Your task to perform on an android device: turn on showing notifications on the lock screen Image 0: 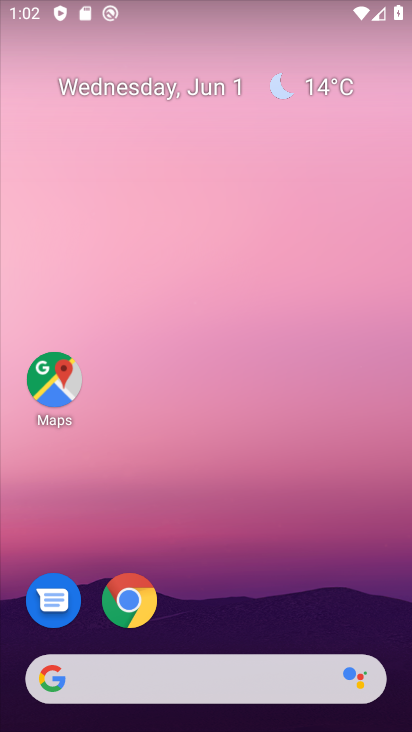
Step 0: drag from (197, 601) to (268, 112)
Your task to perform on an android device: turn on showing notifications on the lock screen Image 1: 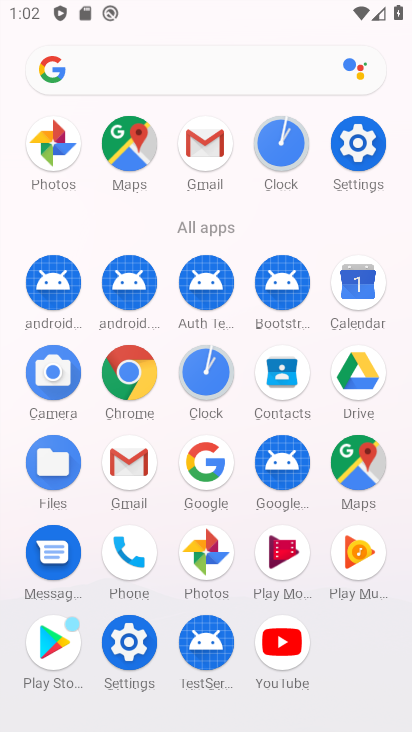
Step 1: click (155, 656)
Your task to perform on an android device: turn on showing notifications on the lock screen Image 2: 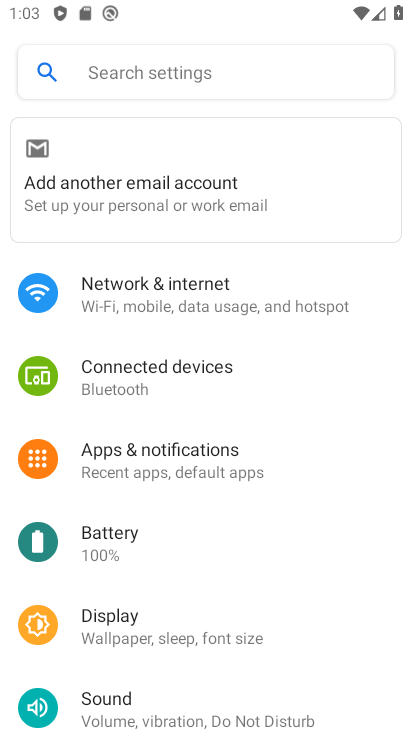
Step 2: click (190, 476)
Your task to perform on an android device: turn on showing notifications on the lock screen Image 3: 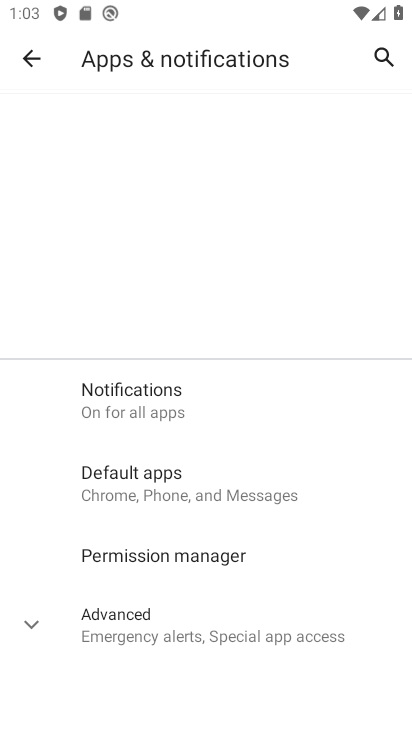
Step 3: drag from (214, 666) to (298, 342)
Your task to perform on an android device: turn on showing notifications on the lock screen Image 4: 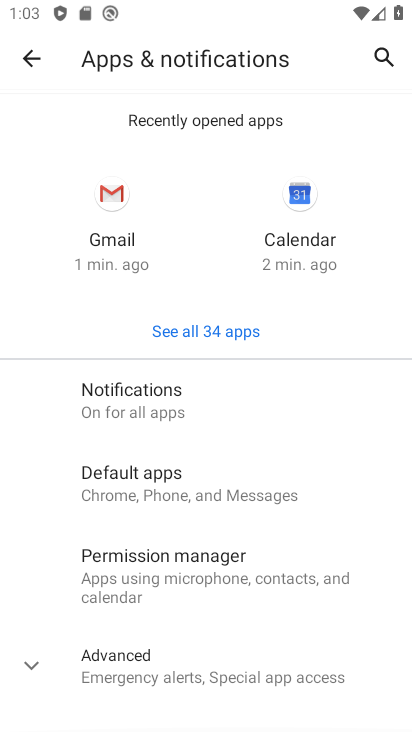
Step 4: click (215, 383)
Your task to perform on an android device: turn on showing notifications on the lock screen Image 5: 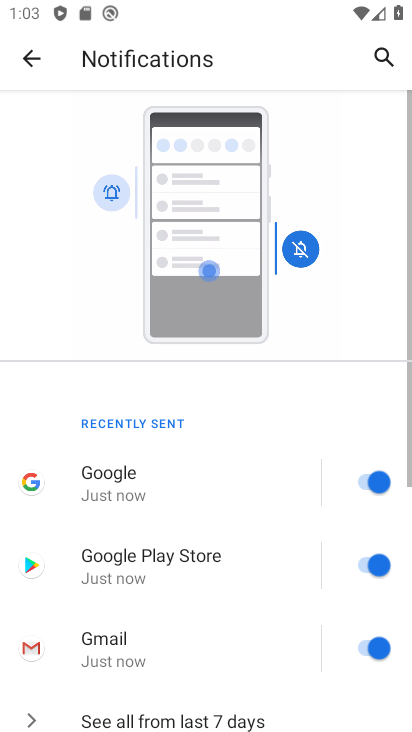
Step 5: drag from (210, 645) to (312, 187)
Your task to perform on an android device: turn on showing notifications on the lock screen Image 6: 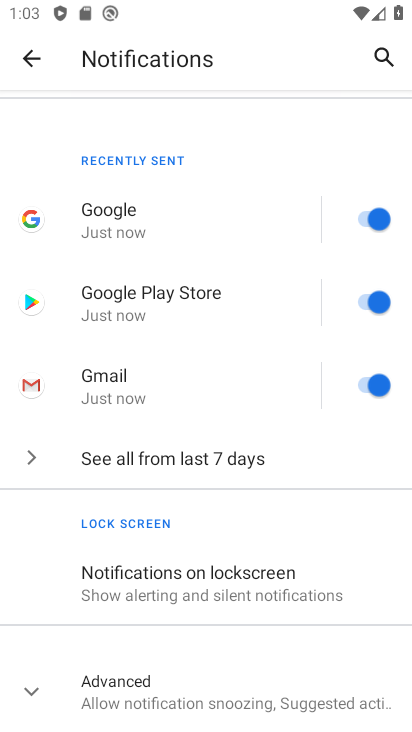
Step 6: click (258, 685)
Your task to perform on an android device: turn on showing notifications on the lock screen Image 7: 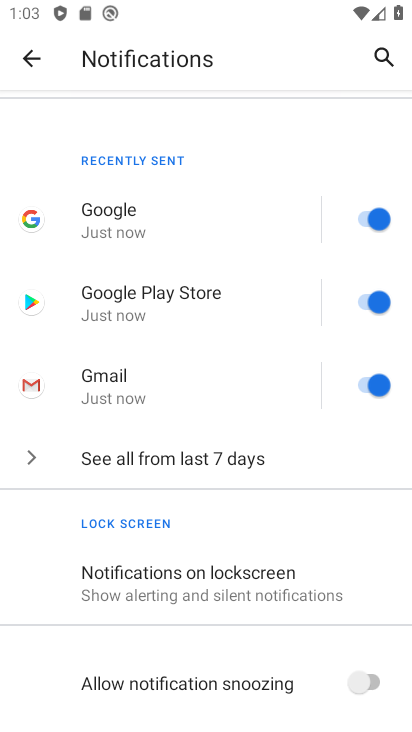
Step 7: drag from (249, 688) to (312, 438)
Your task to perform on an android device: turn on showing notifications on the lock screen Image 8: 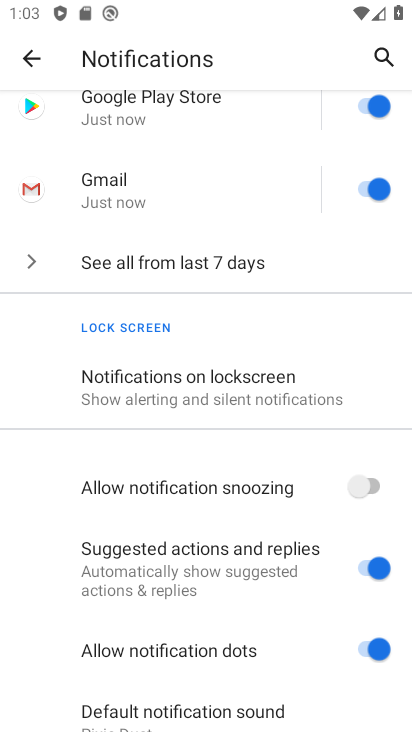
Step 8: drag from (231, 648) to (267, 516)
Your task to perform on an android device: turn on showing notifications on the lock screen Image 9: 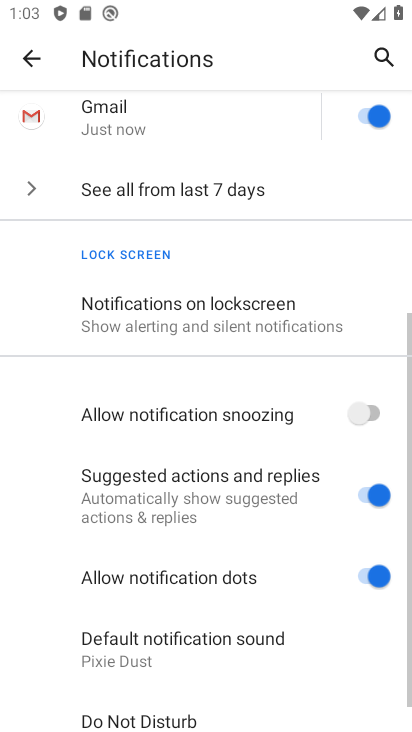
Step 9: click (258, 334)
Your task to perform on an android device: turn on showing notifications on the lock screen Image 10: 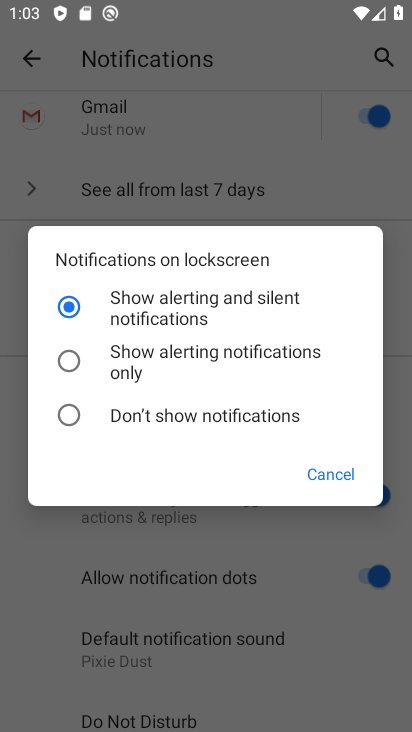
Step 10: task complete